Your task to perform on an android device: open app "Upside-Cash back on gas & food" (install if not already installed) Image 0: 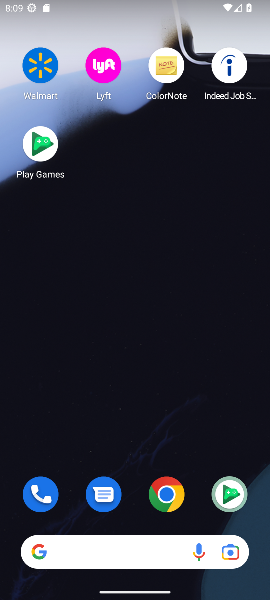
Step 0: drag from (197, 513) to (180, 144)
Your task to perform on an android device: open app "Upside-Cash back on gas & food" (install if not already installed) Image 1: 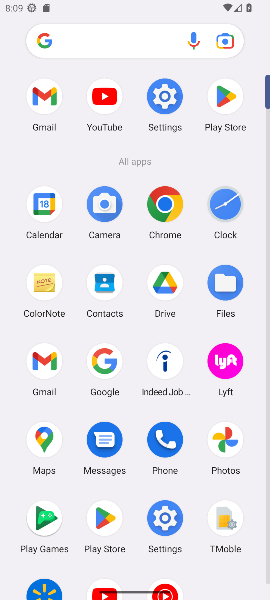
Step 1: drag from (188, 387) to (187, 220)
Your task to perform on an android device: open app "Upside-Cash back on gas & food" (install if not already installed) Image 2: 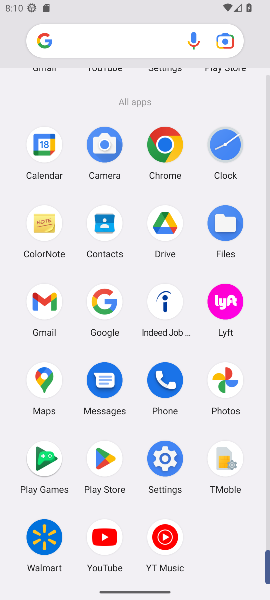
Step 2: click (104, 457)
Your task to perform on an android device: open app "Upside-Cash back on gas & food" (install if not already installed) Image 3: 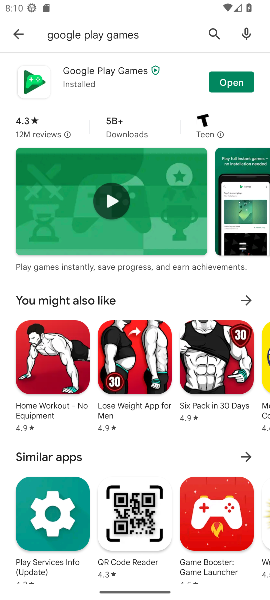
Step 3: click (212, 31)
Your task to perform on an android device: open app "Upside-Cash back on gas & food" (install if not already installed) Image 4: 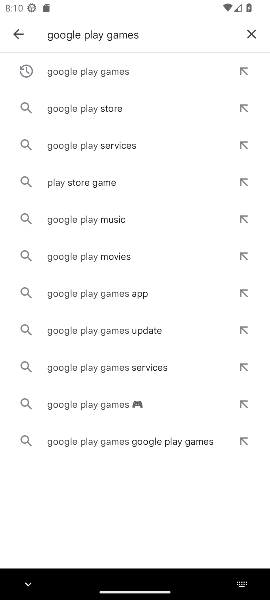
Step 4: click (249, 34)
Your task to perform on an android device: open app "Upside-Cash back on gas & food" (install if not already installed) Image 5: 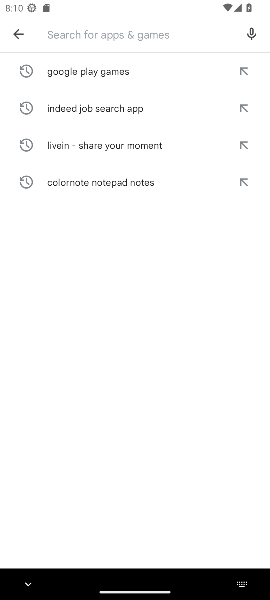
Step 5: type "Upside-Cash back on gas & food"
Your task to perform on an android device: open app "Upside-Cash back on gas & food" (install if not already installed) Image 6: 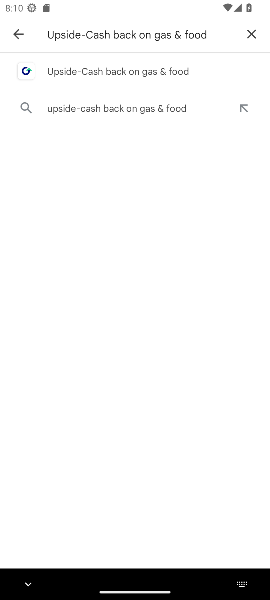
Step 6: click (80, 70)
Your task to perform on an android device: open app "Upside-Cash back on gas & food" (install if not already installed) Image 7: 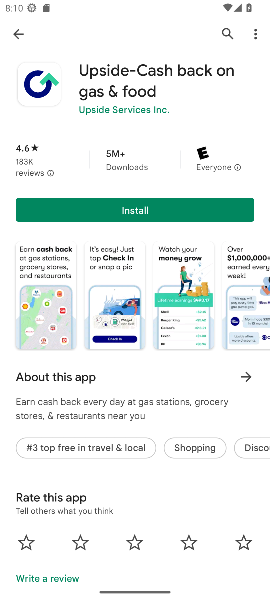
Step 7: click (133, 207)
Your task to perform on an android device: open app "Upside-Cash back on gas & food" (install if not already installed) Image 8: 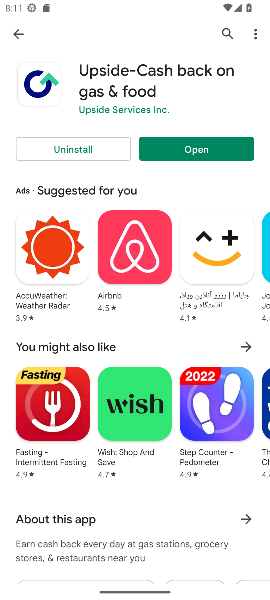
Step 8: click (188, 149)
Your task to perform on an android device: open app "Upside-Cash back on gas & food" (install if not already installed) Image 9: 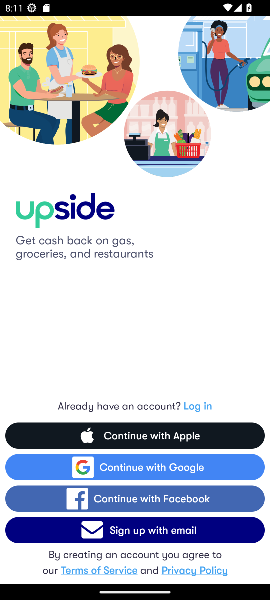
Step 9: task complete